Your task to perform on an android device: delete a single message in the gmail app Image 0: 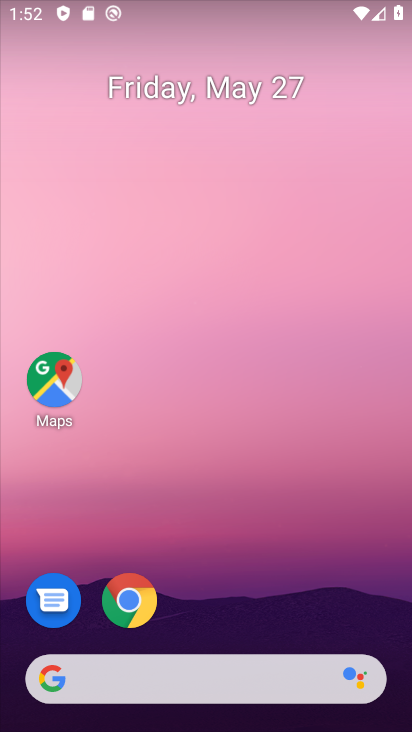
Step 0: drag from (269, 566) to (160, 0)
Your task to perform on an android device: delete a single message in the gmail app Image 1: 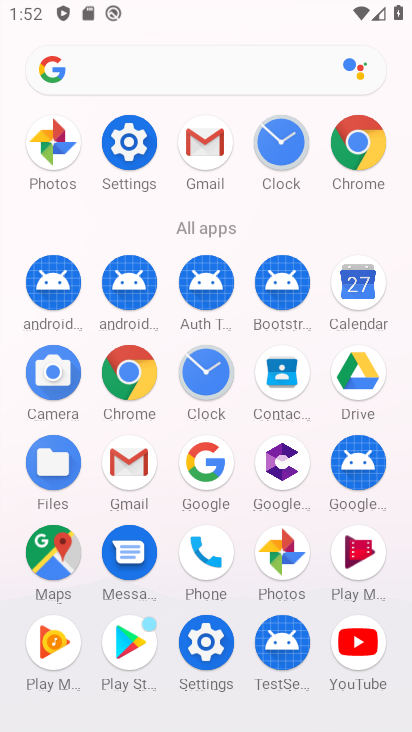
Step 1: drag from (11, 528) to (9, 235)
Your task to perform on an android device: delete a single message in the gmail app Image 2: 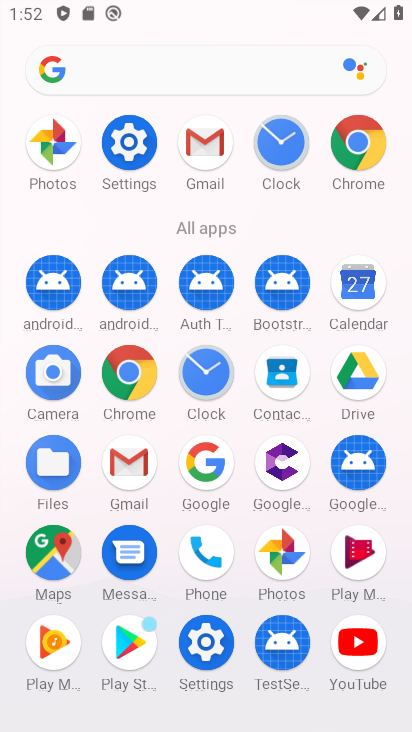
Step 2: click (123, 457)
Your task to perform on an android device: delete a single message in the gmail app Image 3: 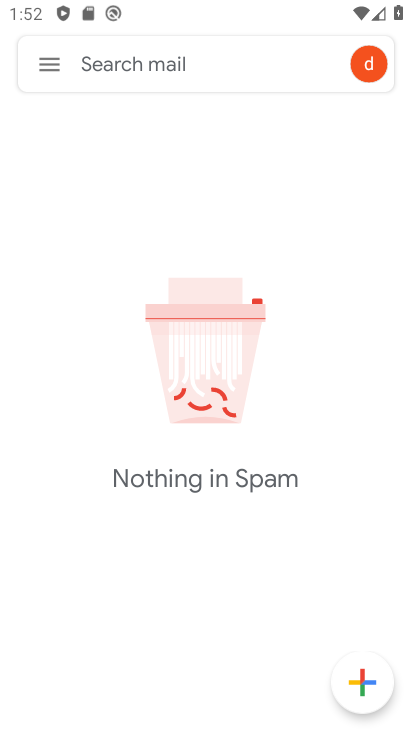
Step 3: click (60, 75)
Your task to perform on an android device: delete a single message in the gmail app Image 4: 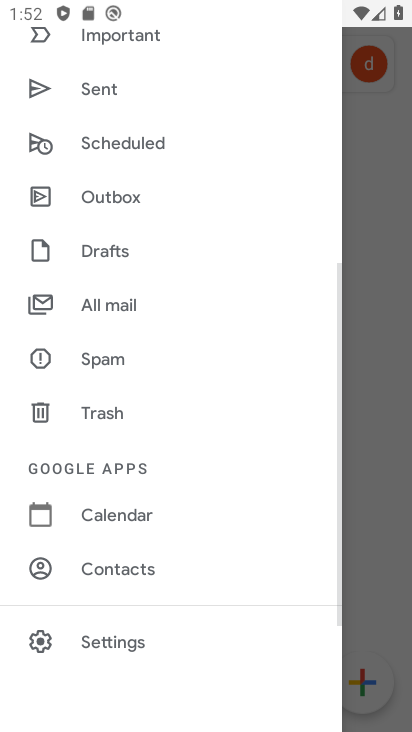
Step 4: drag from (215, 191) to (228, 580)
Your task to perform on an android device: delete a single message in the gmail app Image 5: 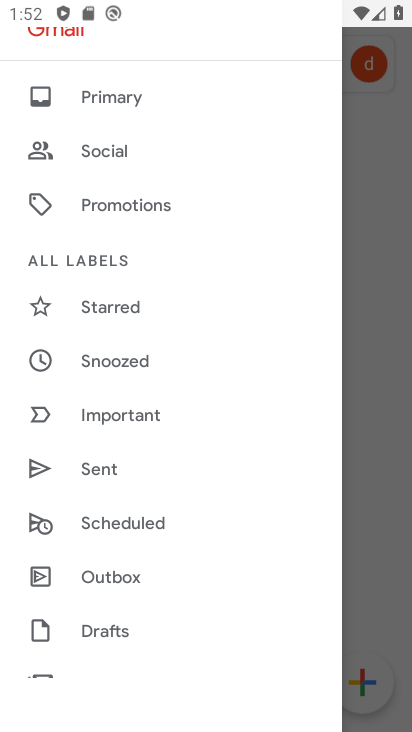
Step 5: drag from (206, 180) to (170, 588)
Your task to perform on an android device: delete a single message in the gmail app Image 6: 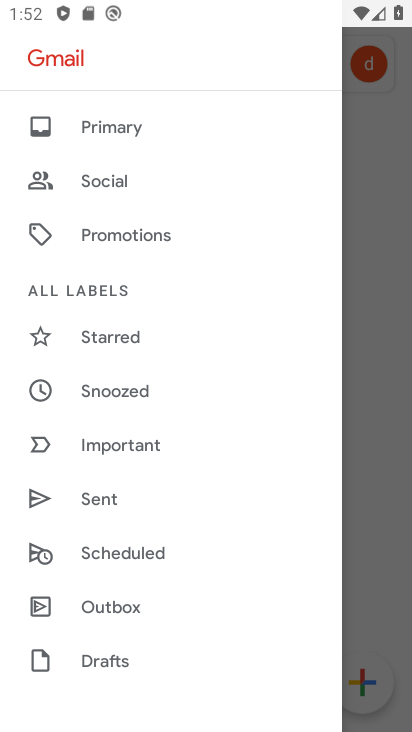
Step 6: click (127, 118)
Your task to perform on an android device: delete a single message in the gmail app Image 7: 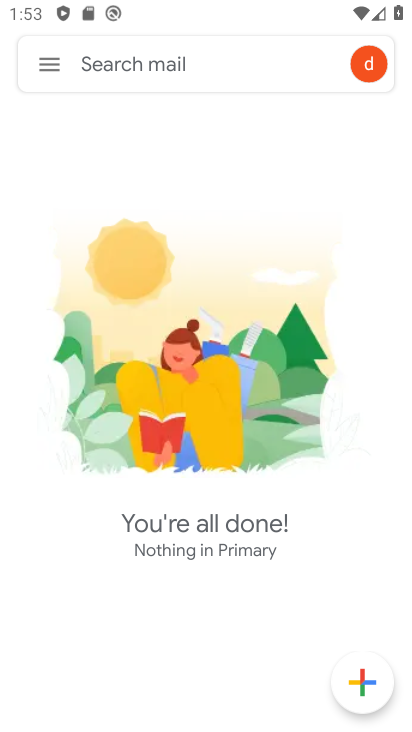
Step 7: click (49, 68)
Your task to perform on an android device: delete a single message in the gmail app Image 8: 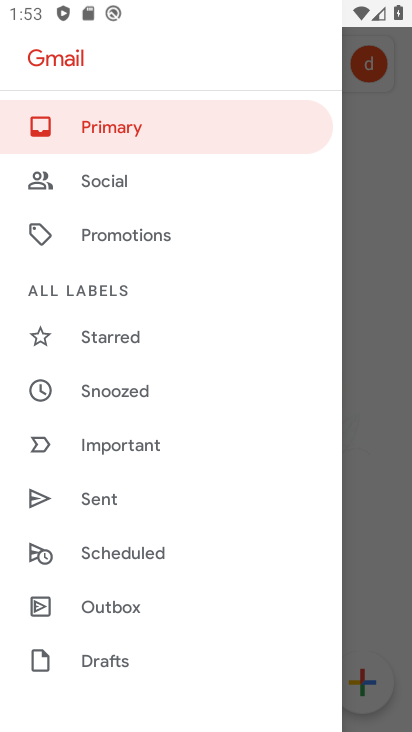
Step 8: click (137, 328)
Your task to perform on an android device: delete a single message in the gmail app Image 9: 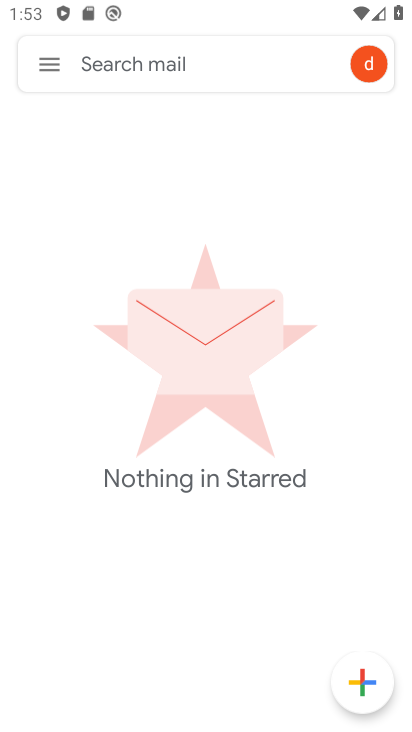
Step 9: click (34, 60)
Your task to perform on an android device: delete a single message in the gmail app Image 10: 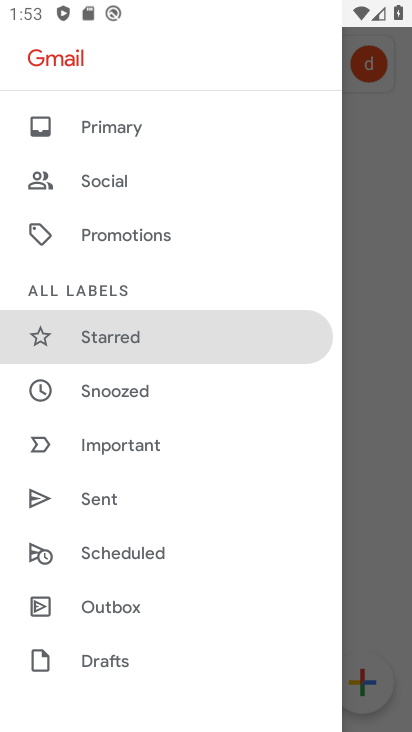
Step 10: drag from (164, 619) to (188, 104)
Your task to perform on an android device: delete a single message in the gmail app Image 11: 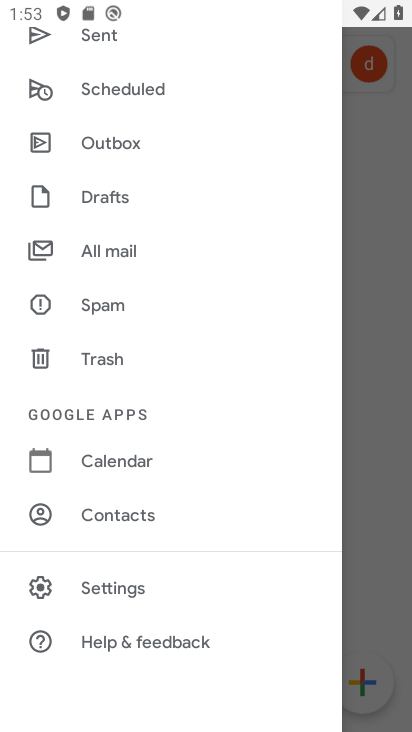
Step 11: click (145, 249)
Your task to perform on an android device: delete a single message in the gmail app Image 12: 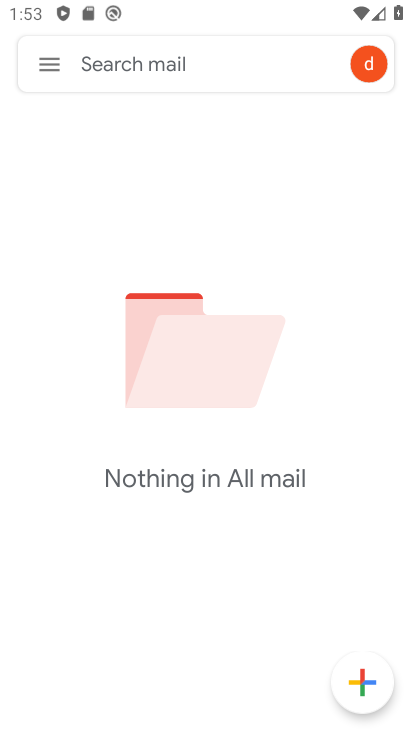
Step 12: click (56, 72)
Your task to perform on an android device: delete a single message in the gmail app Image 13: 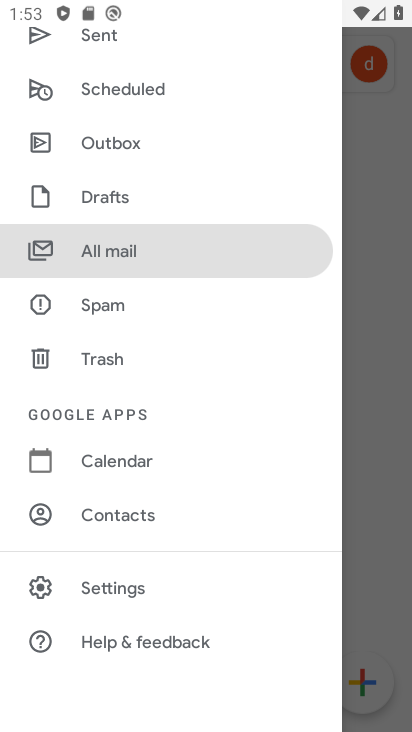
Step 13: drag from (189, 67) to (190, 481)
Your task to perform on an android device: delete a single message in the gmail app Image 14: 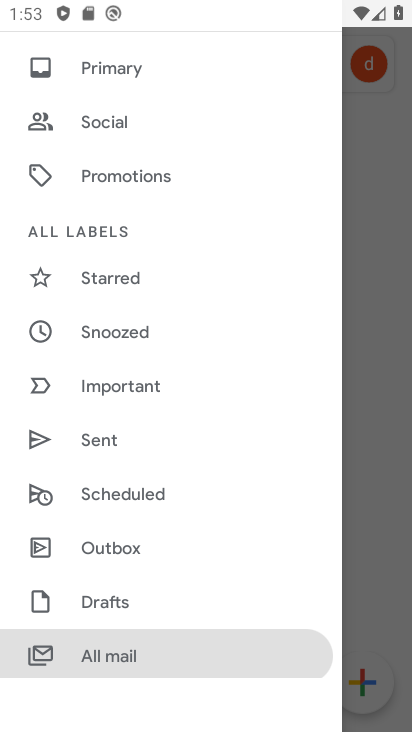
Step 14: click (129, 439)
Your task to perform on an android device: delete a single message in the gmail app Image 15: 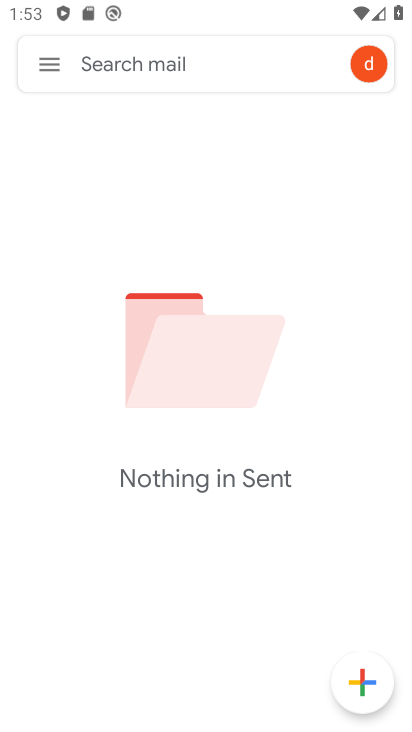
Step 15: click (53, 55)
Your task to perform on an android device: delete a single message in the gmail app Image 16: 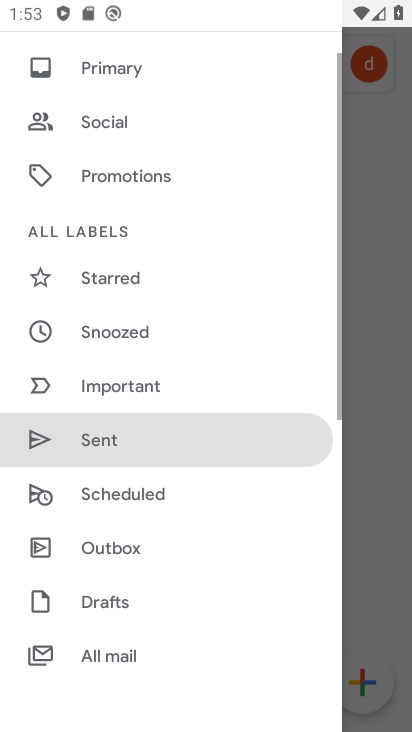
Step 16: drag from (211, 235) to (225, 629)
Your task to perform on an android device: delete a single message in the gmail app Image 17: 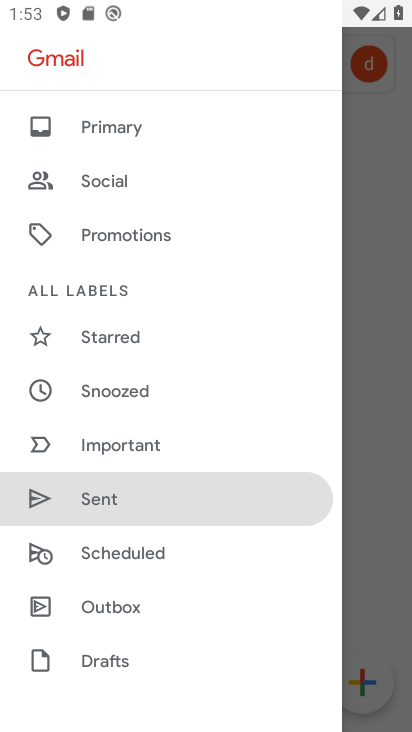
Step 17: click (150, 103)
Your task to perform on an android device: delete a single message in the gmail app Image 18: 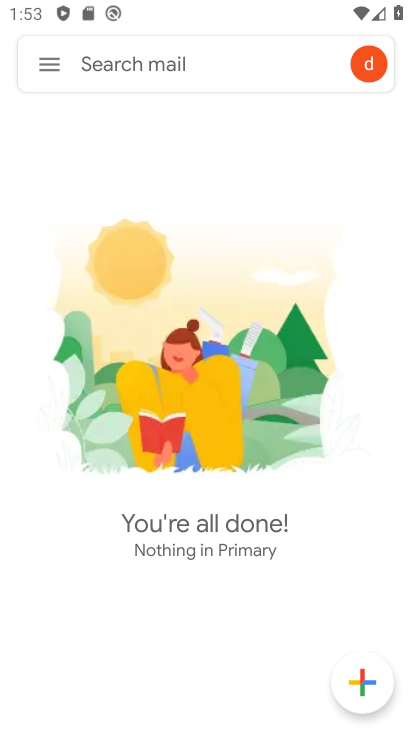
Step 18: click (41, 59)
Your task to perform on an android device: delete a single message in the gmail app Image 19: 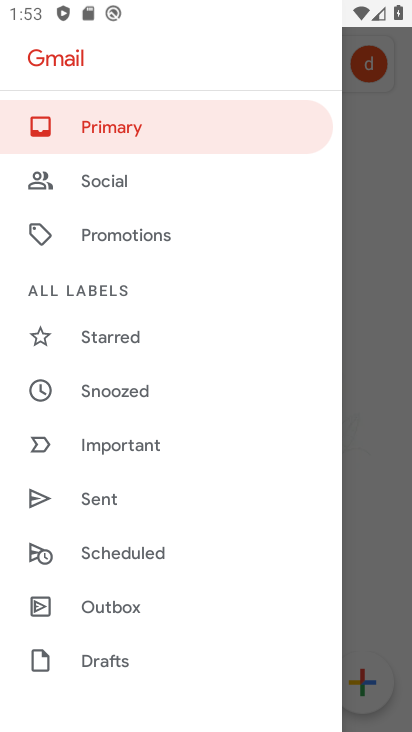
Step 19: click (136, 335)
Your task to perform on an android device: delete a single message in the gmail app Image 20: 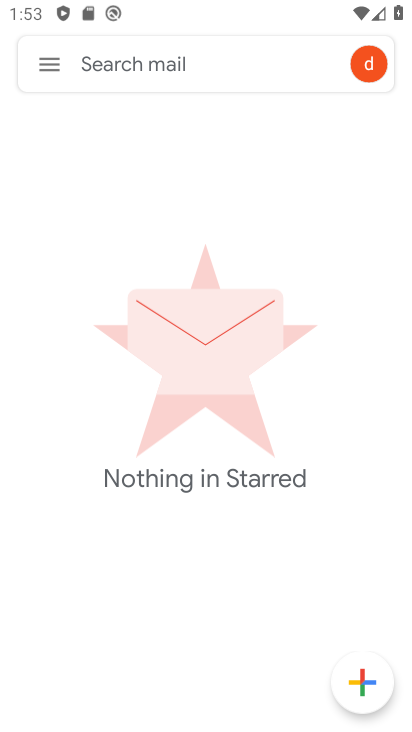
Step 20: click (51, 66)
Your task to perform on an android device: delete a single message in the gmail app Image 21: 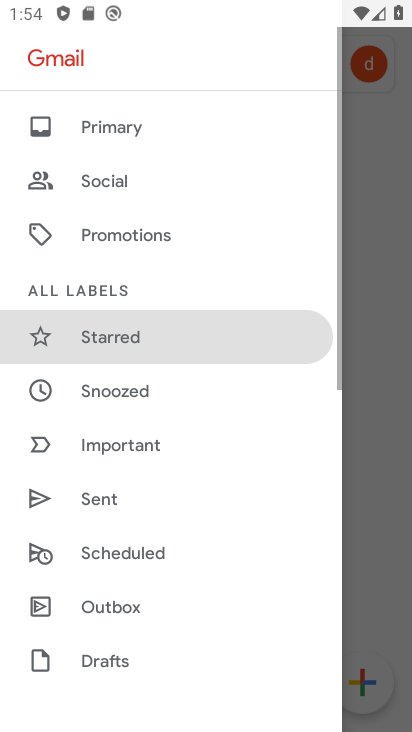
Step 21: drag from (193, 602) to (219, 161)
Your task to perform on an android device: delete a single message in the gmail app Image 22: 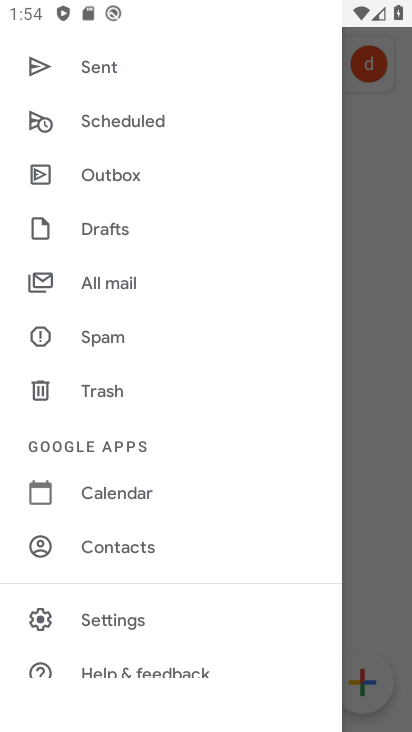
Step 22: click (129, 283)
Your task to perform on an android device: delete a single message in the gmail app Image 23: 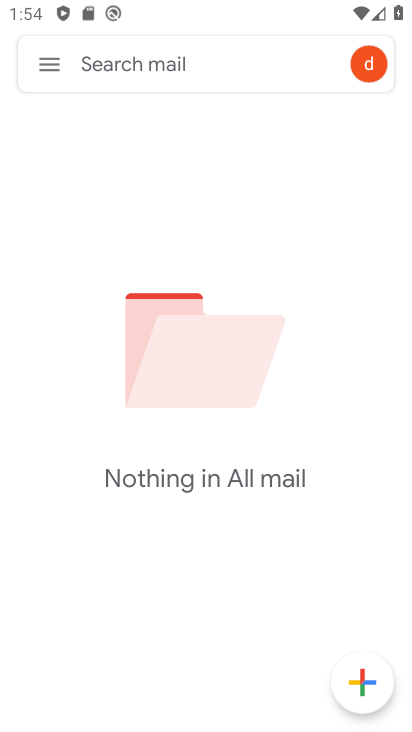
Step 23: task complete